Your task to perform on an android device: check storage Image 0: 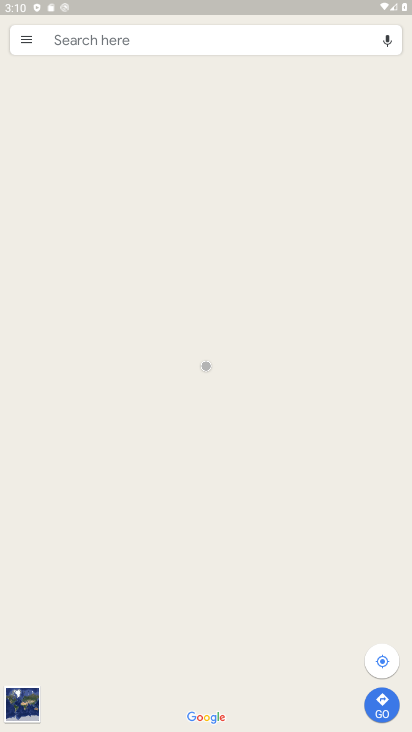
Step 0: press home button
Your task to perform on an android device: check storage Image 1: 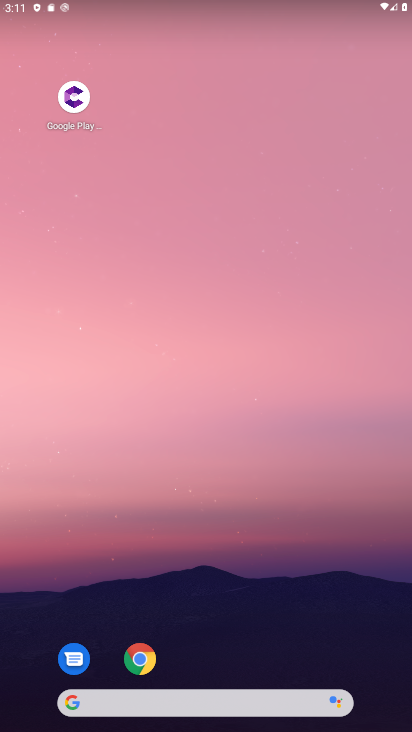
Step 1: drag from (233, 622) to (255, 273)
Your task to perform on an android device: check storage Image 2: 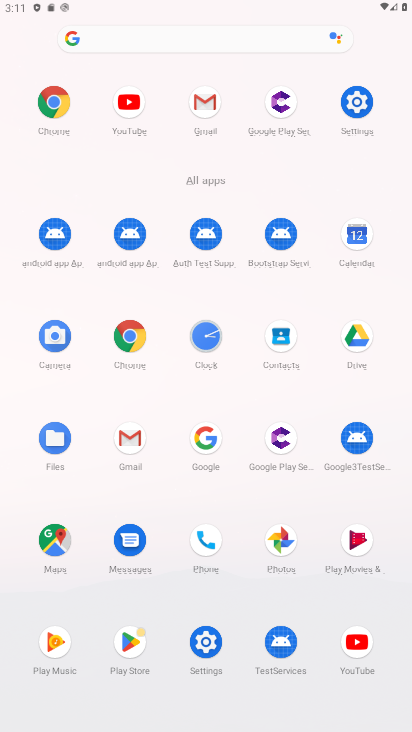
Step 2: click (351, 100)
Your task to perform on an android device: check storage Image 3: 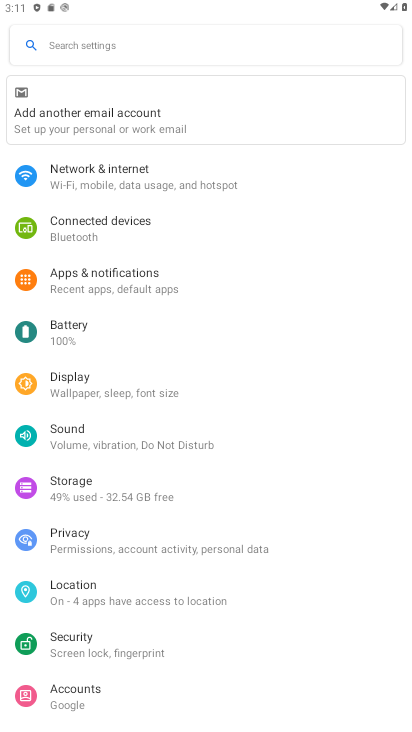
Step 3: click (62, 477)
Your task to perform on an android device: check storage Image 4: 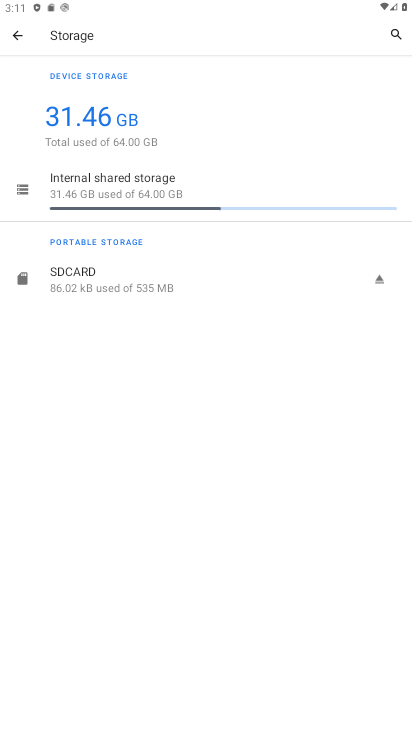
Step 4: task complete